Your task to perform on an android device: Is it going to rain this weekend? Image 0: 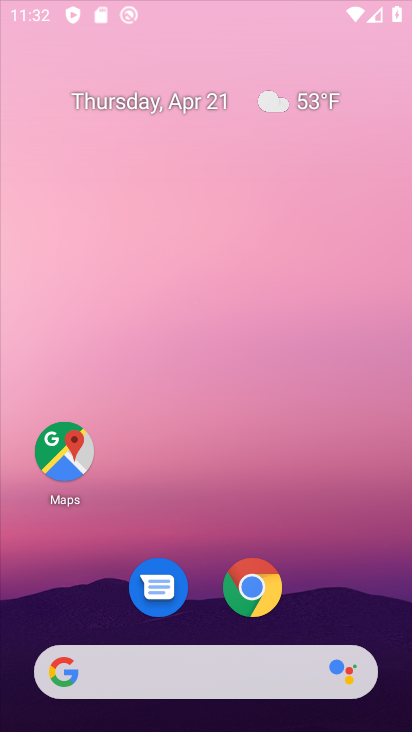
Step 0: drag from (246, 467) to (292, 163)
Your task to perform on an android device: Is it going to rain this weekend? Image 1: 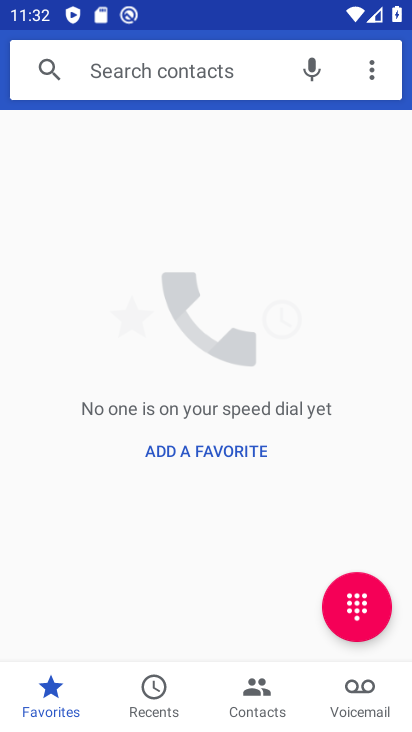
Step 1: press back button
Your task to perform on an android device: Is it going to rain this weekend? Image 2: 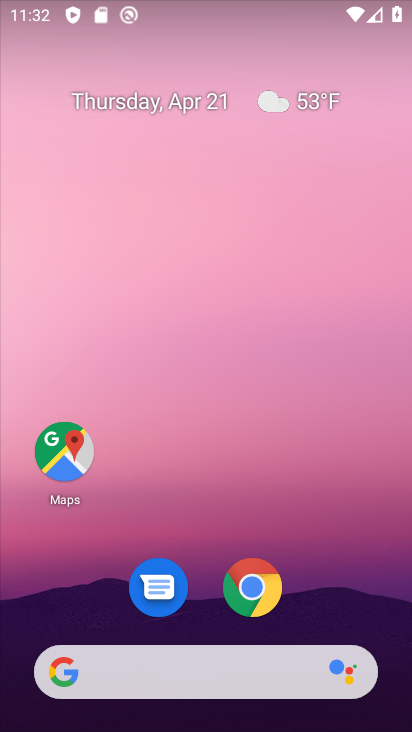
Step 2: click (307, 97)
Your task to perform on an android device: Is it going to rain this weekend? Image 3: 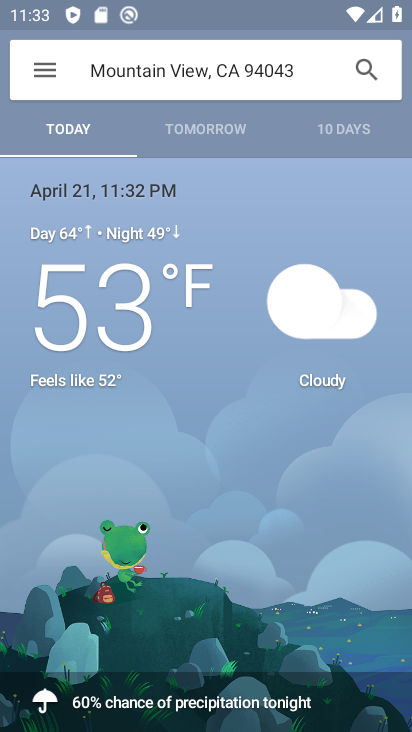
Step 3: click (368, 126)
Your task to perform on an android device: Is it going to rain this weekend? Image 4: 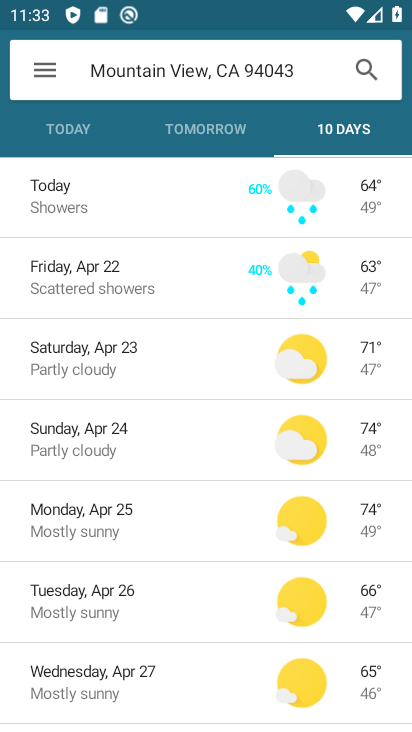
Step 4: task complete